Your task to perform on an android device: Set the phone to "Do not disturb". Image 0: 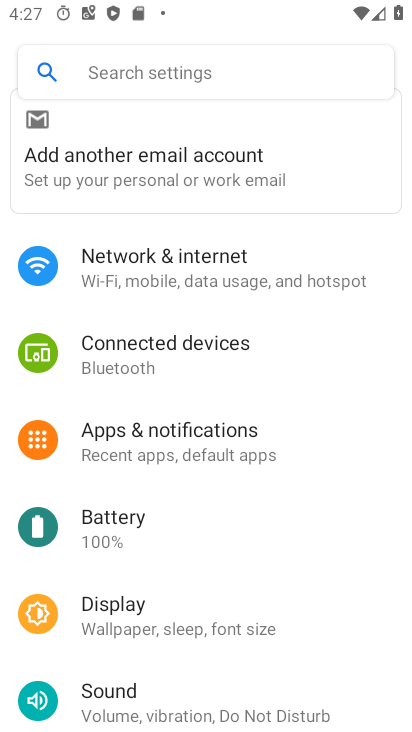
Step 0: drag from (344, 570) to (336, 420)
Your task to perform on an android device: Set the phone to "Do not disturb". Image 1: 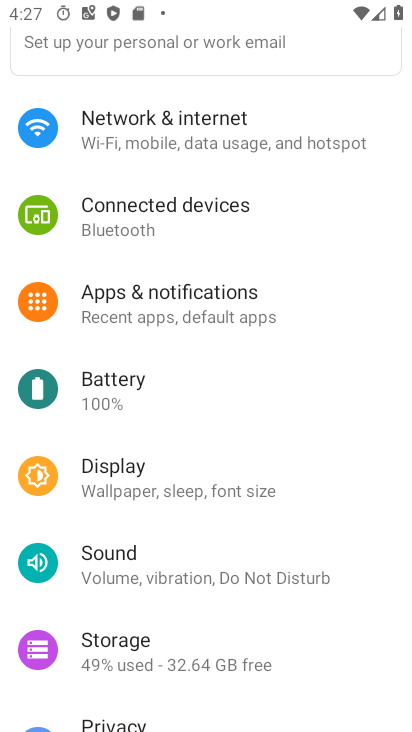
Step 1: click (114, 562)
Your task to perform on an android device: Set the phone to "Do not disturb". Image 2: 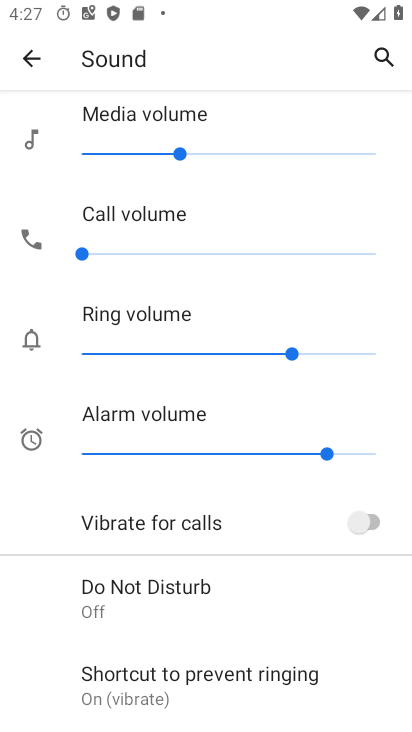
Step 2: click (169, 587)
Your task to perform on an android device: Set the phone to "Do not disturb". Image 3: 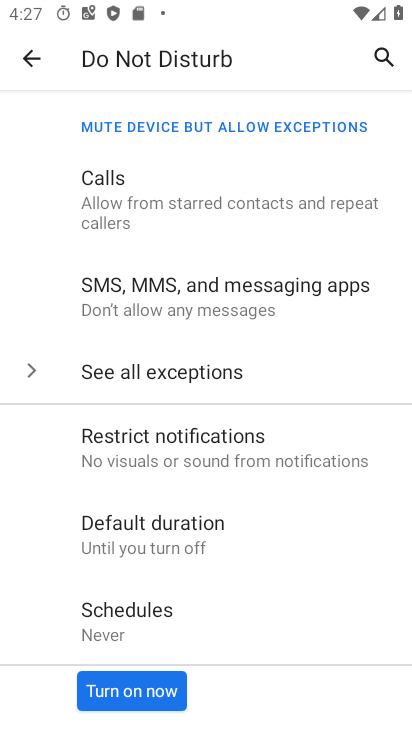
Step 3: click (121, 695)
Your task to perform on an android device: Set the phone to "Do not disturb". Image 4: 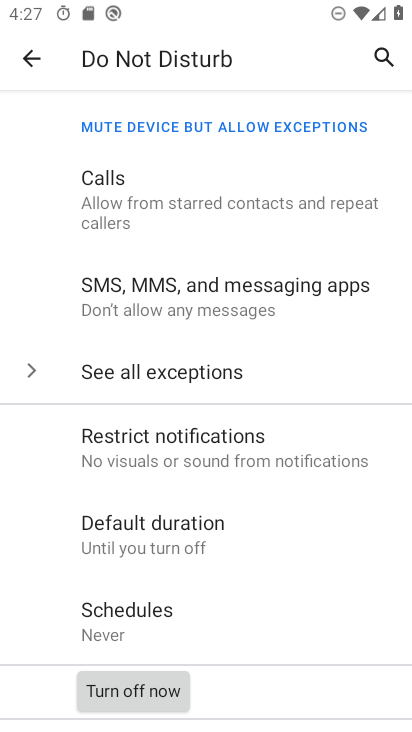
Step 4: task complete